Your task to perform on an android device: Go to Maps Image 0: 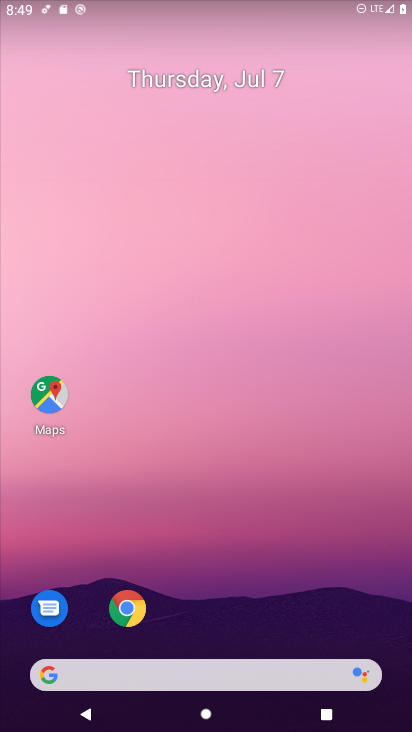
Step 0: click (49, 394)
Your task to perform on an android device: Go to Maps Image 1: 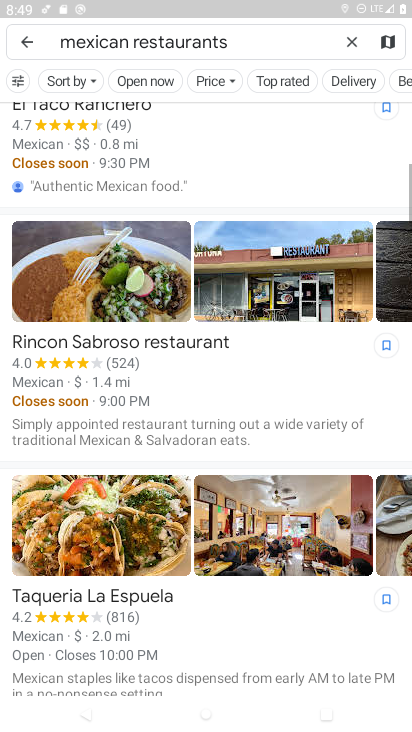
Step 1: click (352, 41)
Your task to perform on an android device: Go to Maps Image 2: 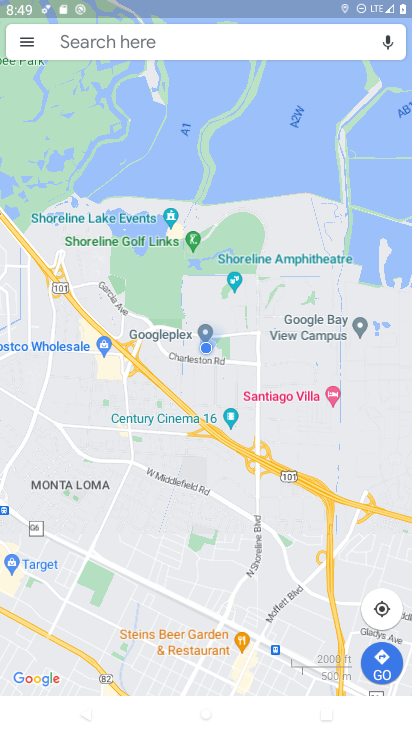
Step 2: task complete